Your task to perform on an android device: change keyboard looks Image 0: 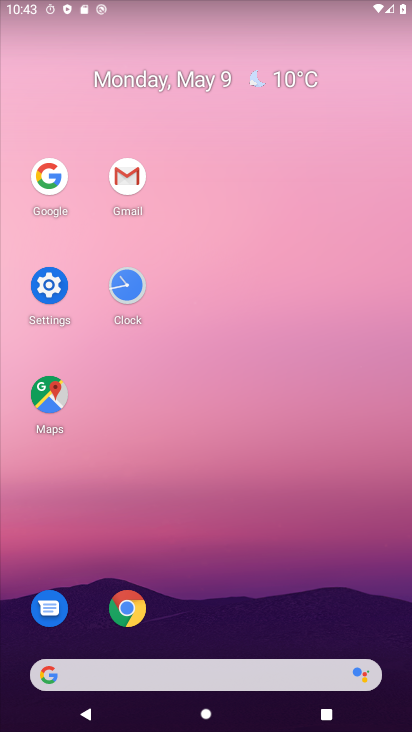
Step 0: click (51, 282)
Your task to perform on an android device: change keyboard looks Image 1: 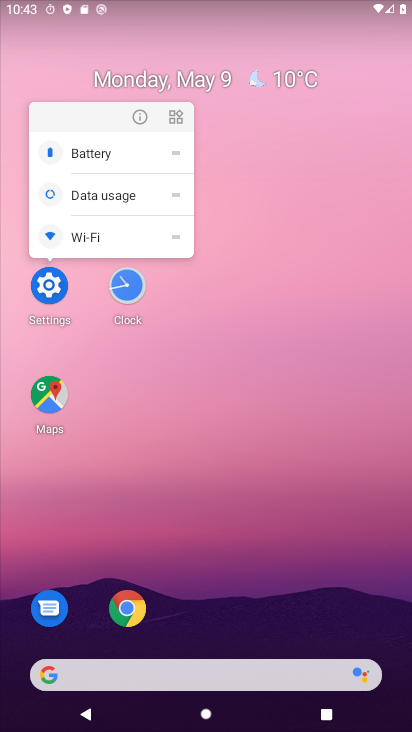
Step 1: click (64, 272)
Your task to perform on an android device: change keyboard looks Image 2: 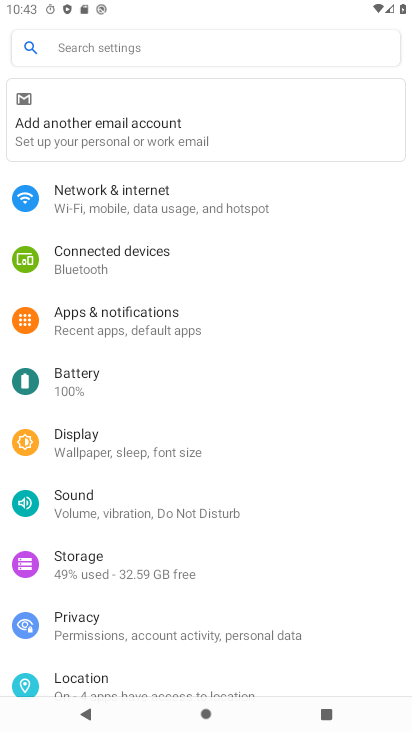
Step 2: drag from (218, 509) to (283, 126)
Your task to perform on an android device: change keyboard looks Image 3: 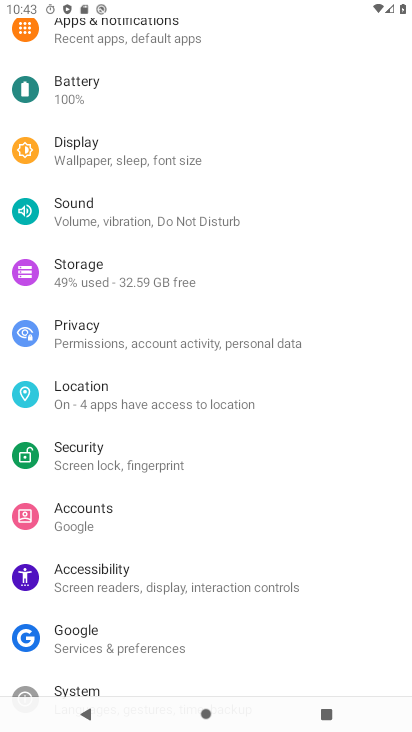
Step 3: drag from (173, 580) to (235, 159)
Your task to perform on an android device: change keyboard looks Image 4: 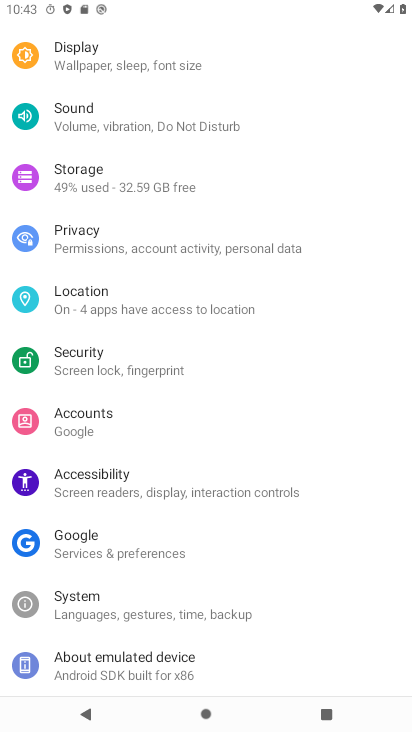
Step 4: click (101, 613)
Your task to perform on an android device: change keyboard looks Image 5: 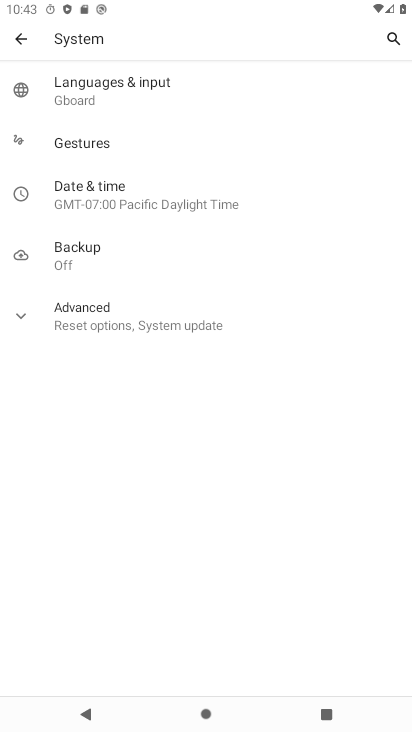
Step 5: click (149, 79)
Your task to perform on an android device: change keyboard looks Image 6: 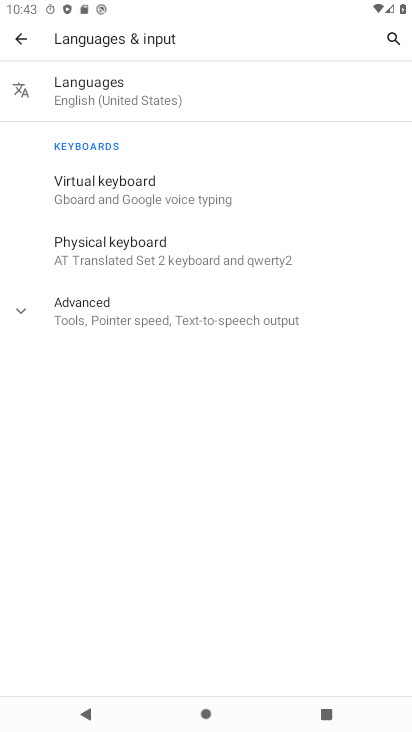
Step 6: click (137, 205)
Your task to perform on an android device: change keyboard looks Image 7: 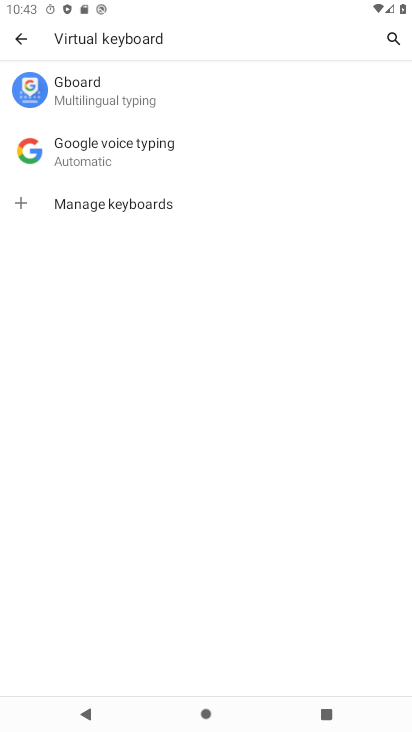
Step 7: click (139, 86)
Your task to perform on an android device: change keyboard looks Image 8: 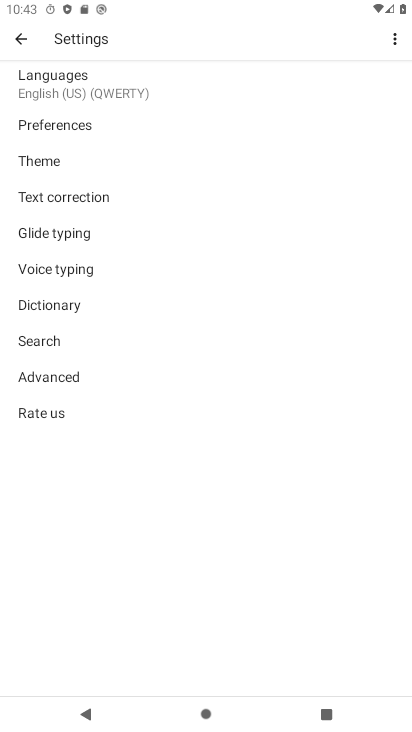
Step 8: click (57, 152)
Your task to perform on an android device: change keyboard looks Image 9: 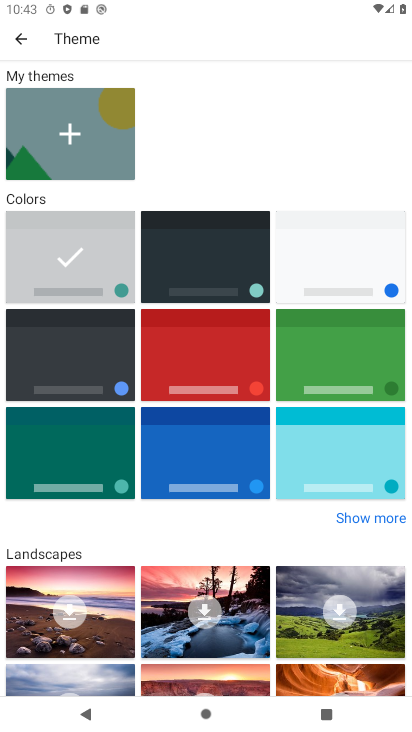
Step 9: click (258, 289)
Your task to perform on an android device: change keyboard looks Image 10: 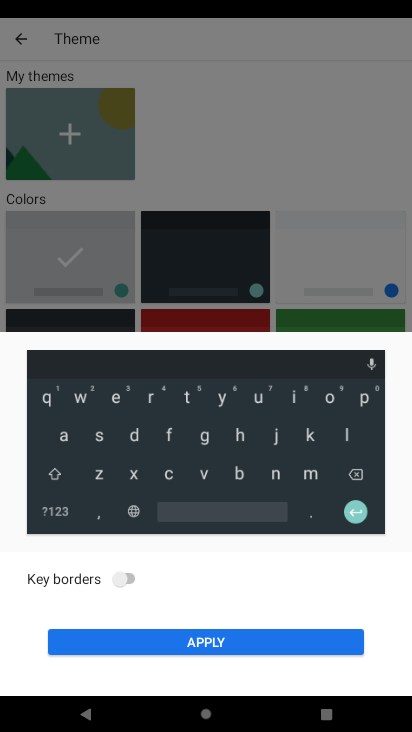
Step 10: click (132, 571)
Your task to perform on an android device: change keyboard looks Image 11: 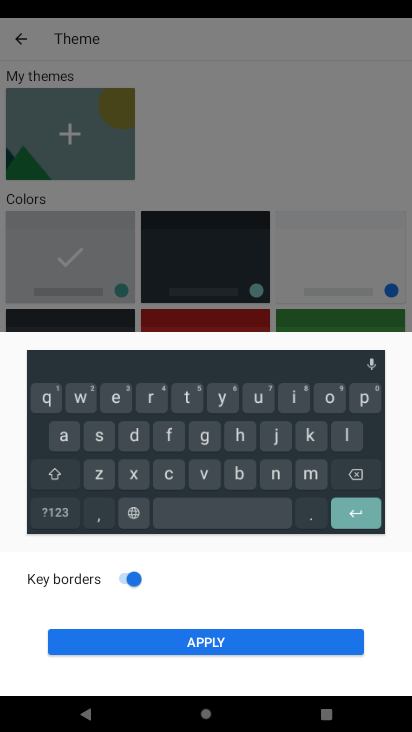
Step 11: click (187, 643)
Your task to perform on an android device: change keyboard looks Image 12: 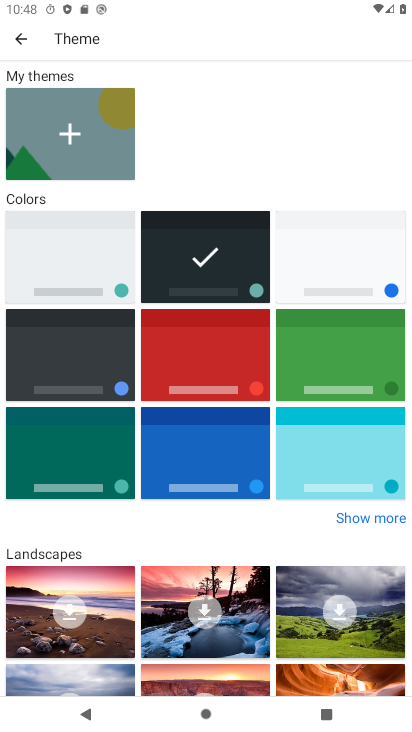
Step 12: task complete